Your task to perform on an android device: Show me the alarms in the clock app Image 0: 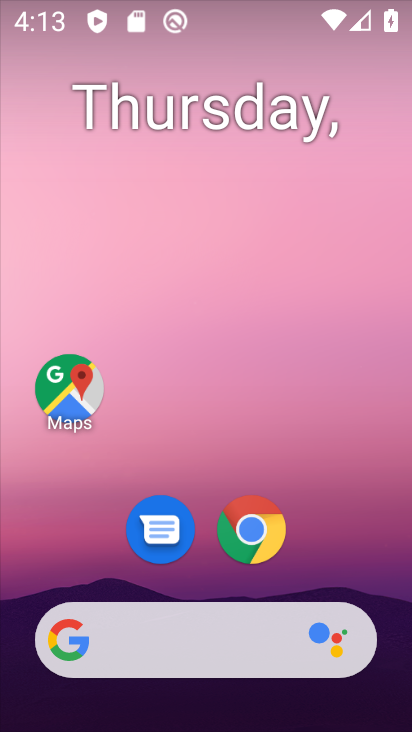
Step 0: drag from (222, 725) to (242, 163)
Your task to perform on an android device: Show me the alarms in the clock app Image 1: 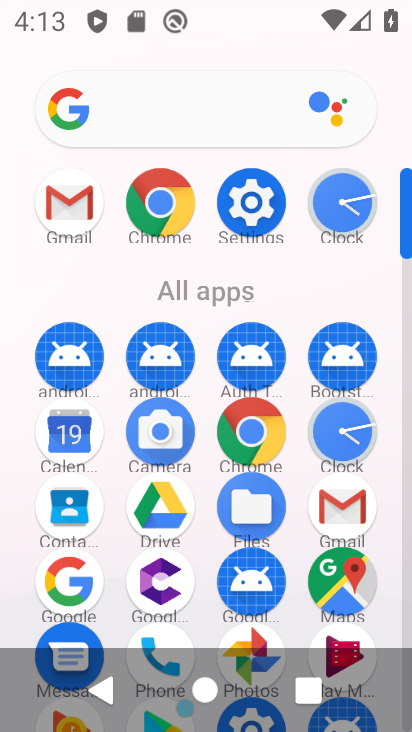
Step 1: click (339, 427)
Your task to perform on an android device: Show me the alarms in the clock app Image 2: 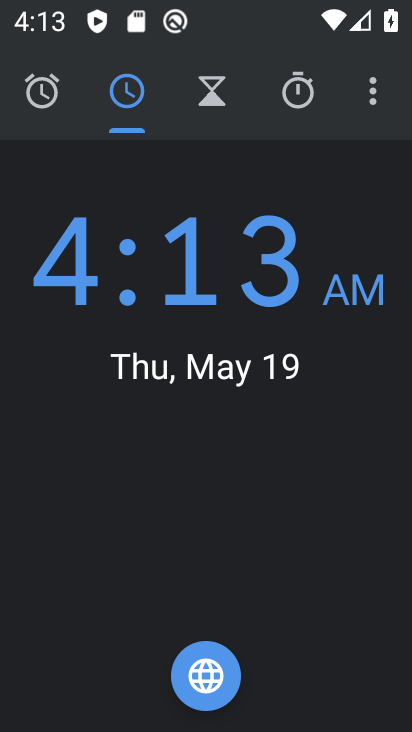
Step 2: click (43, 100)
Your task to perform on an android device: Show me the alarms in the clock app Image 3: 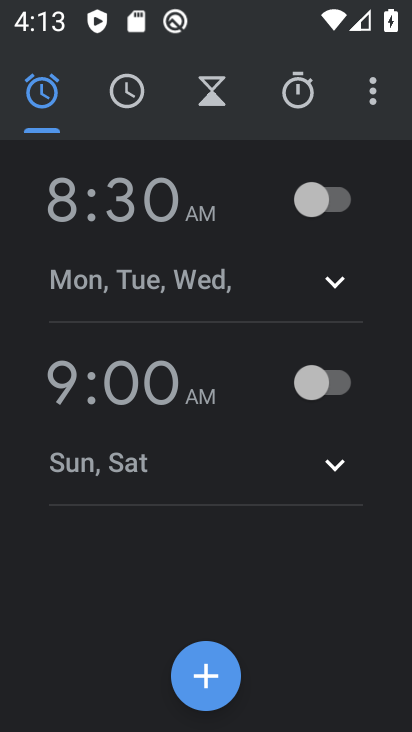
Step 3: task complete